Your task to perform on an android device: Open calendar and show me the third week of next month Image 0: 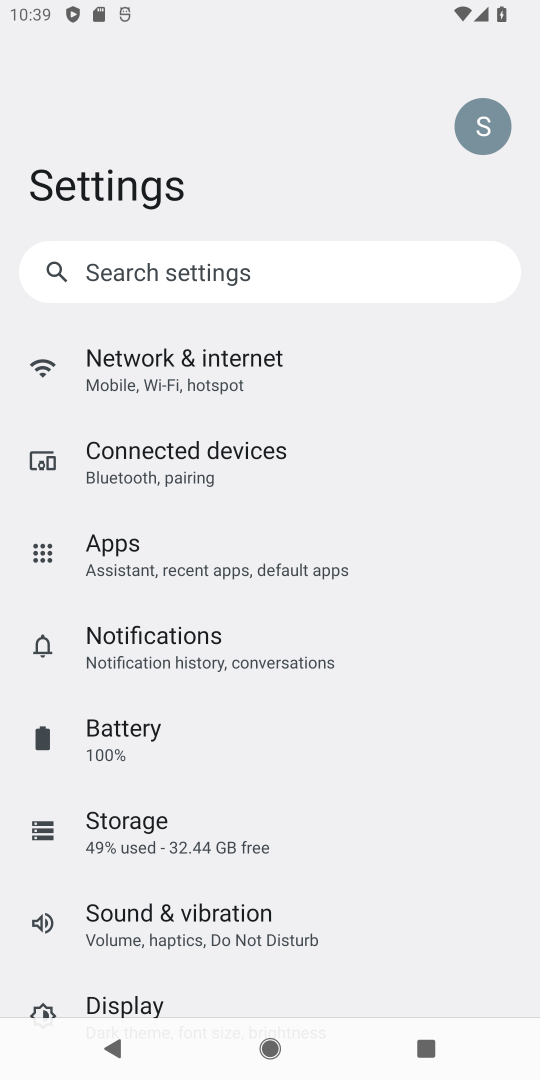
Step 0: press home button
Your task to perform on an android device: Open calendar and show me the third week of next month Image 1: 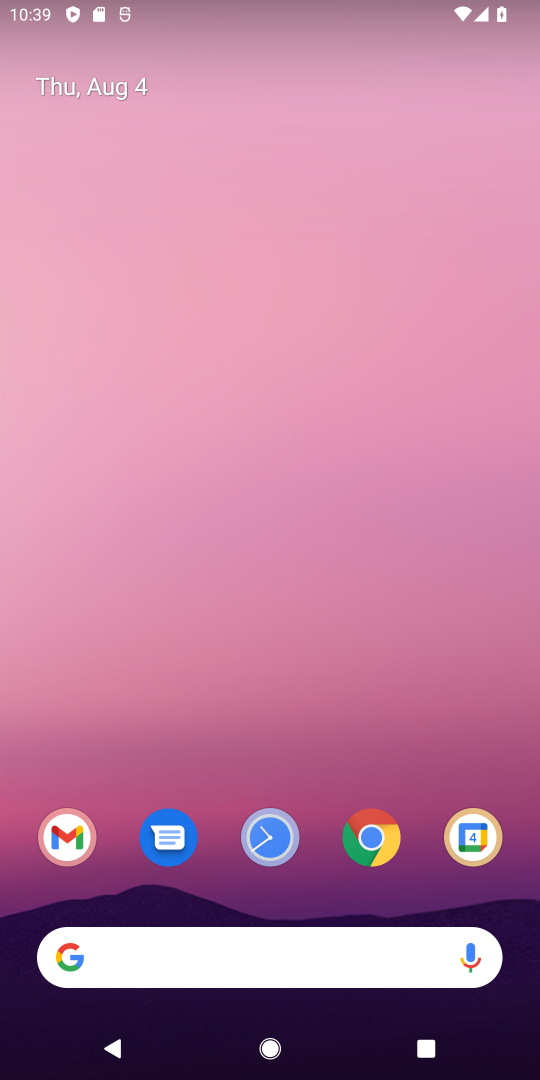
Step 1: drag from (328, 853) to (219, 39)
Your task to perform on an android device: Open calendar and show me the third week of next month Image 2: 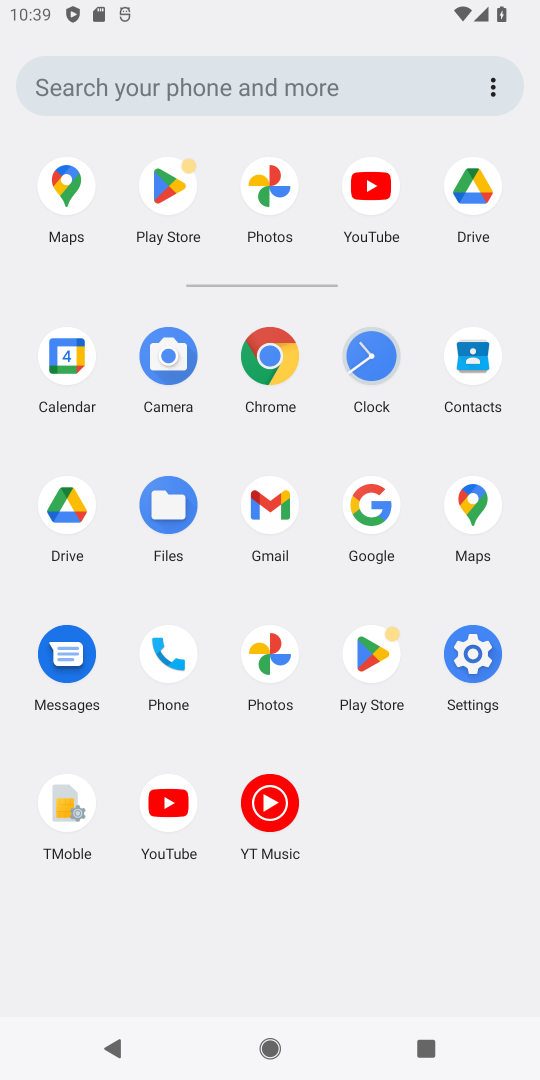
Step 2: click (47, 389)
Your task to perform on an android device: Open calendar and show me the third week of next month Image 3: 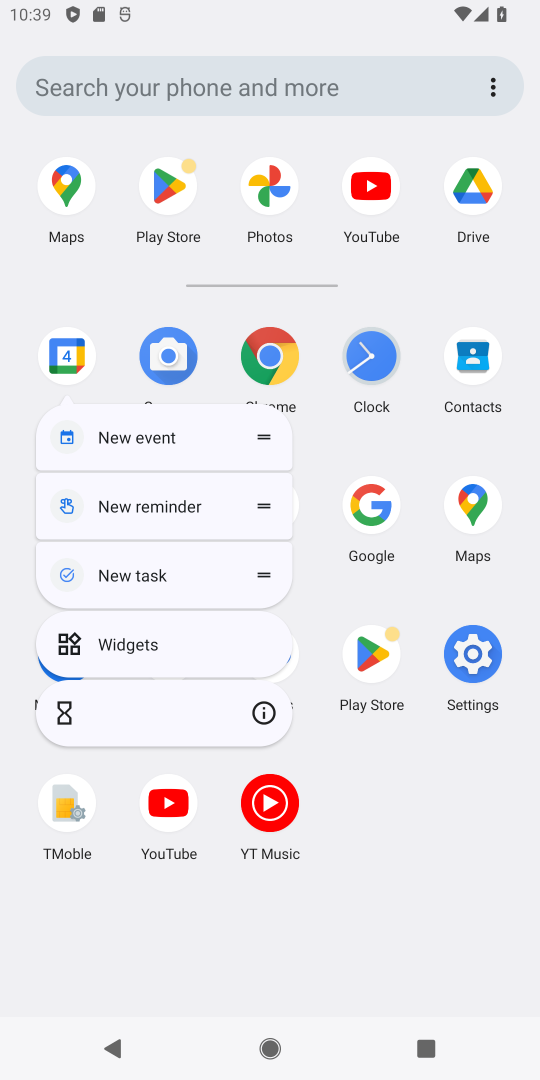
Step 3: click (57, 352)
Your task to perform on an android device: Open calendar and show me the third week of next month Image 4: 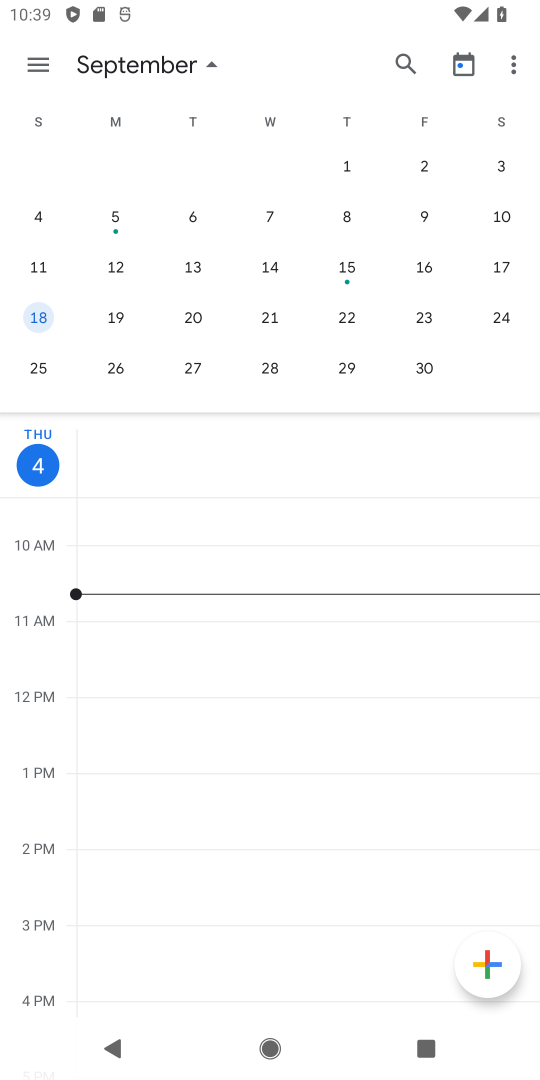
Step 4: drag from (523, 171) to (19, 292)
Your task to perform on an android device: Open calendar and show me the third week of next month Image 5: 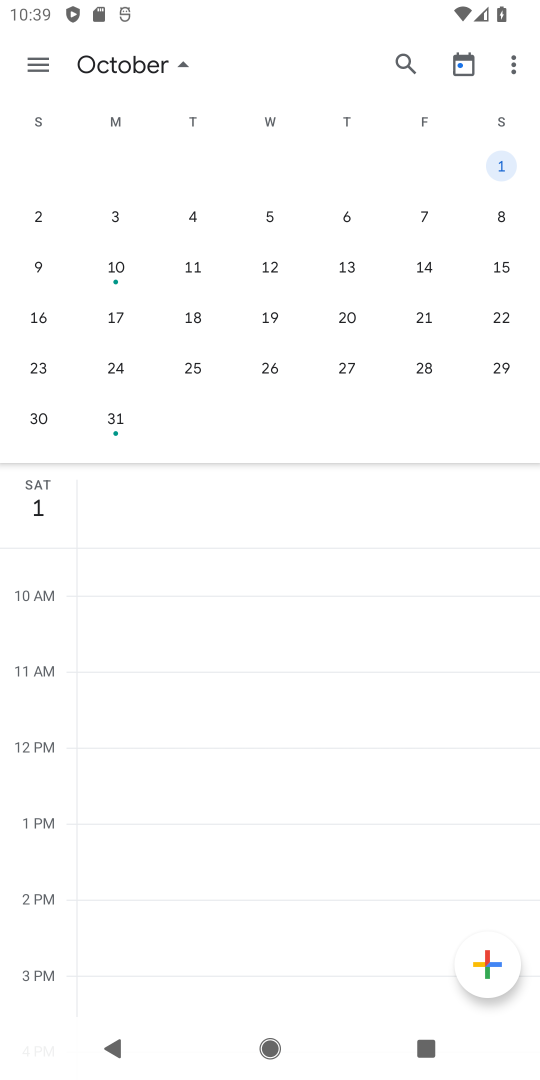
Step 5: click (33, 315)
Your task to perform on an android device: Open calendar and show me the third week of next month Image 6: 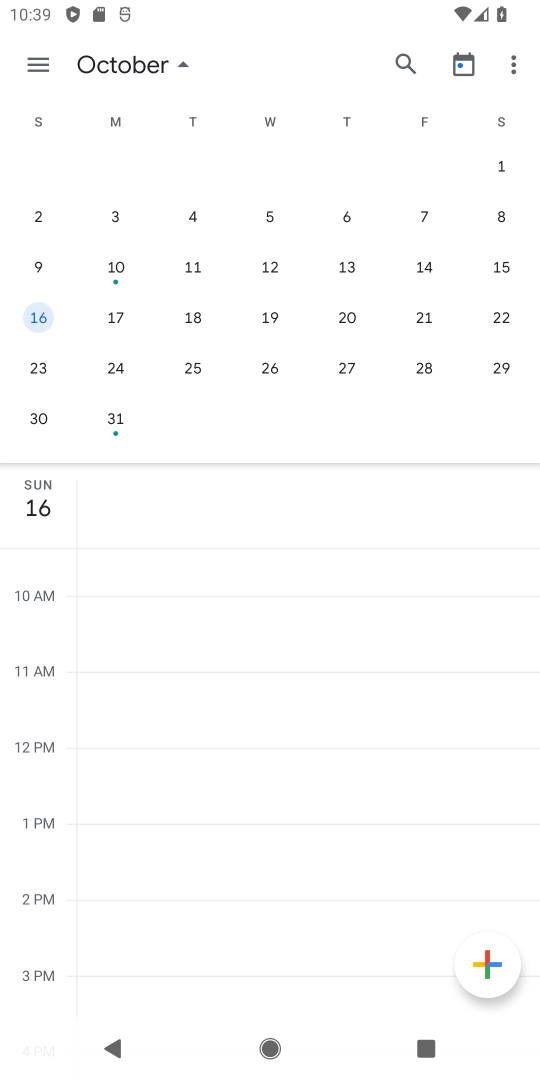
Step 6: task complete